Your task to perform on an android device: Open notification settings Image 0: 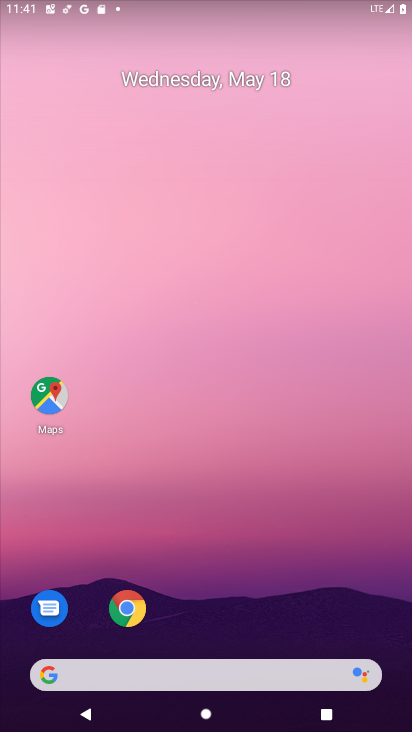
Step 0: drag from (161, 236) to (175, 135)
Your task to perform on an android device: Open notification settings Image 1: 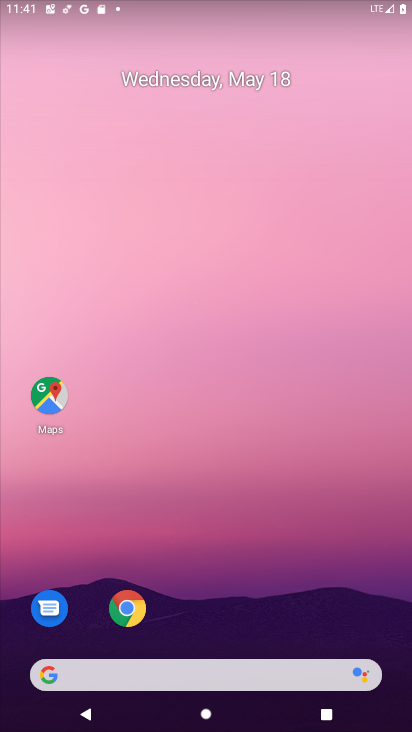
Step 1: drag from (197, 633) to (126, 161)
Your task to perform on an android device: Open notification settings Image 2: 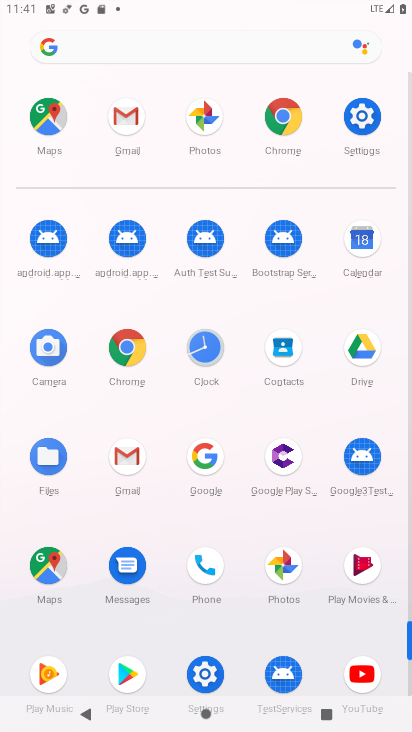
Step 2: click (203, 676)
Your task to perform on an android device: Open notification settings Image 3: 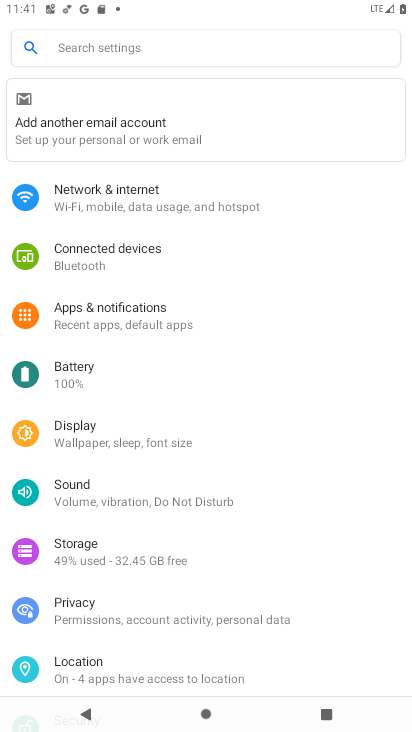
Step 3: click (117, 319)
Your task to perform on an android device: Open notification settings Image 4: 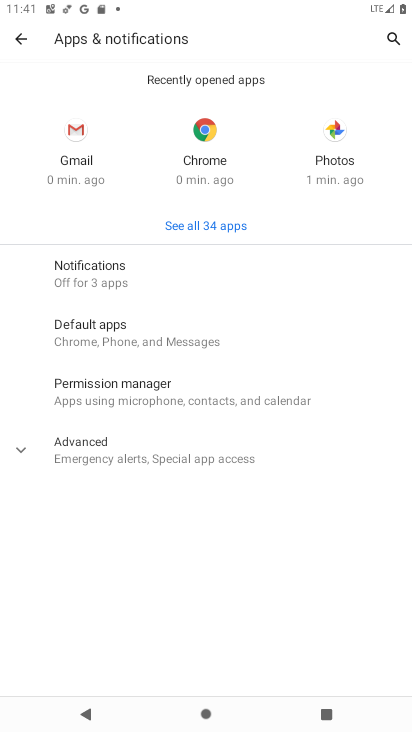
Step 4: click (117, 293)
Your task to perform on an android device: Open notification settings Image 5: 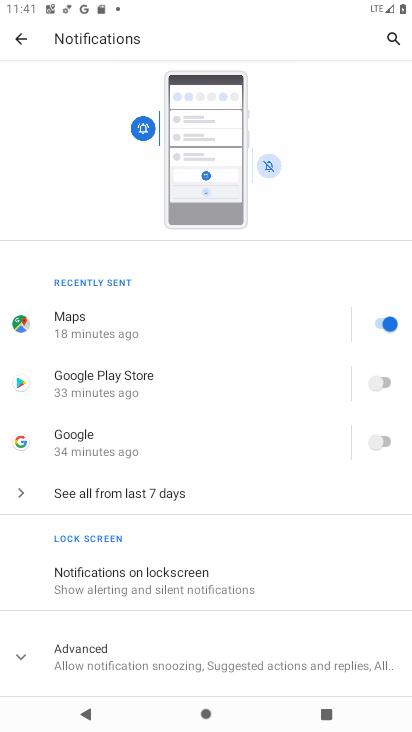
Step 5: click (180, 673)
Your task to perform on an android device: Open notification settings Image 6: 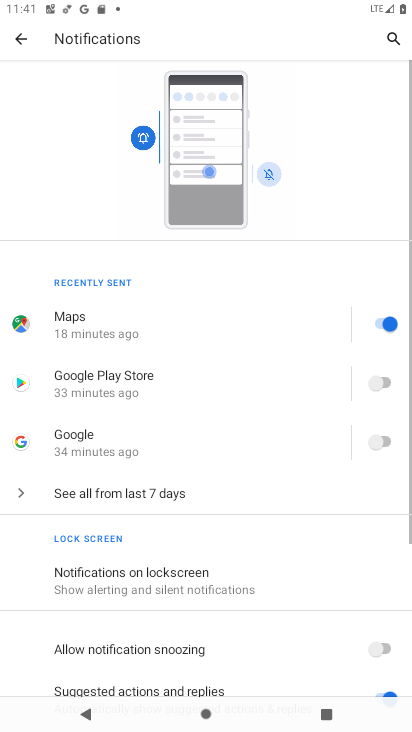
Step 6: task complete